Your task to perform on an android device: What's the weather going to be this weekend? Image 0: 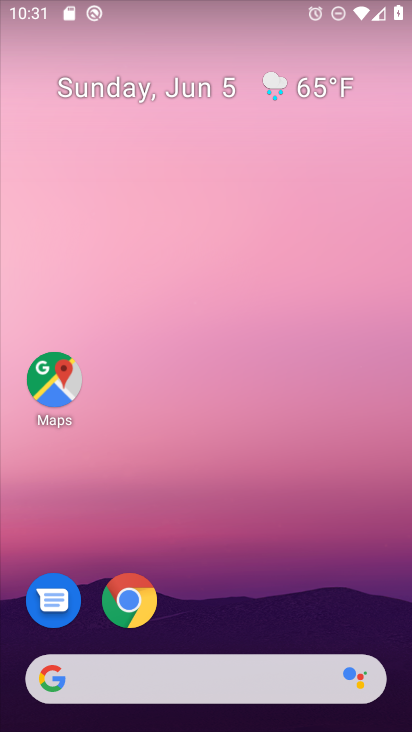
Step 0: drag from (365, 600) to (199, 6)
Your task to perform on an android device: What's the weather going to be this weekend? Image 1: 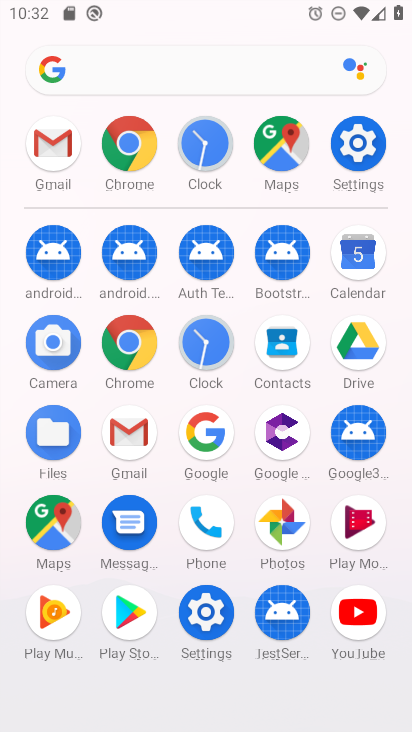
Step 1: click (208, 428)
Your task to perform on an android device: What's the weather going to be this weekend? Image 2: 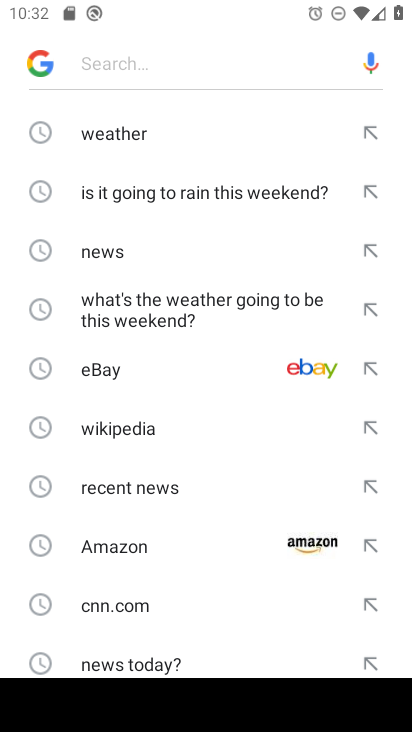
Step 2: click (175, 305)
Your task to perform on an android device: What's the weather going to be this weekend? Image 3: 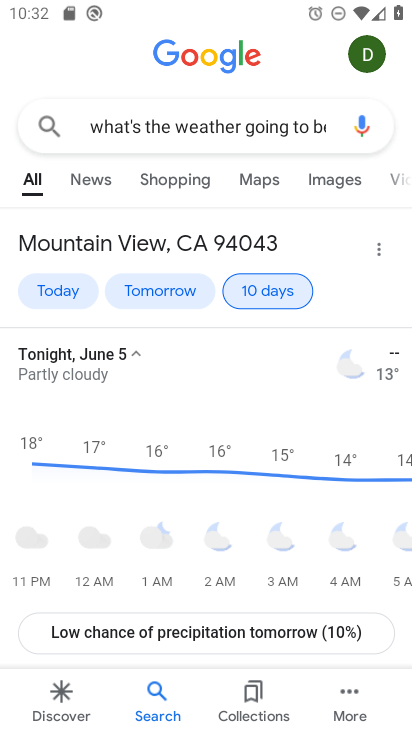
Step 3: task complete